Your task to perform on an android device: toggle translation in the chrome app Image 0: 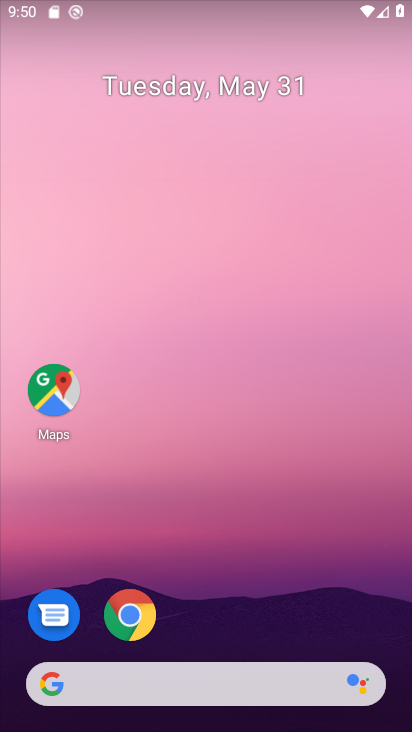
Step 0: click (119, 607)
Your task to perform on an android device: toggle translation in the chrome app Image 1: 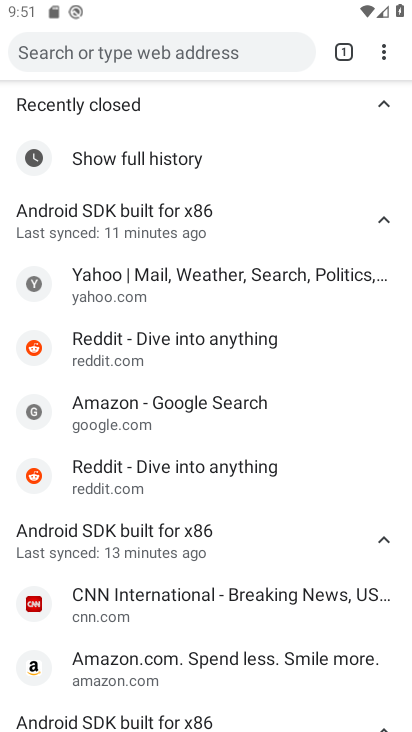
Step 1: click (386, 57)
Your task to perform on an android device: toggle translation in the chrome app Image 2: 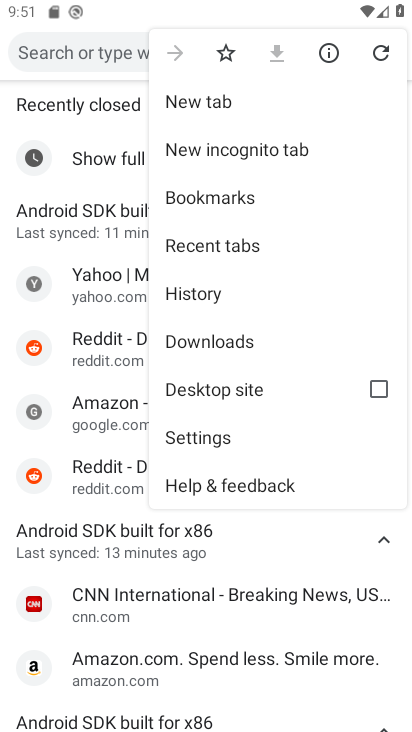
Step 2: click (232, 441)
Your task to perform on an android device: toggle translation in the chrome app Image 3: 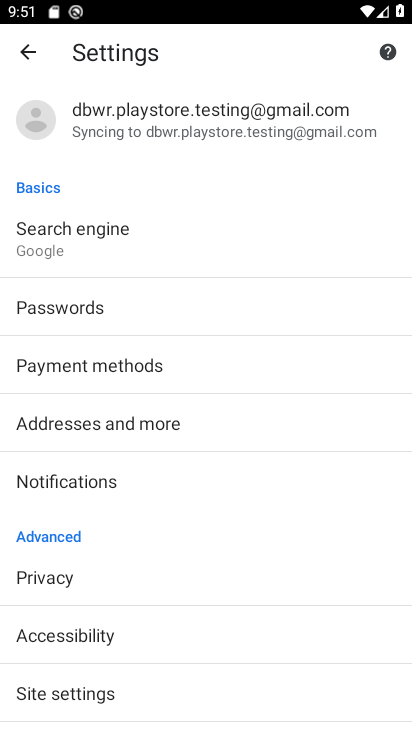
Step 3: drag from (171, 632) to (259, 239)
Your task to perform on an android device: toggle translation in the chrome app Image 4: 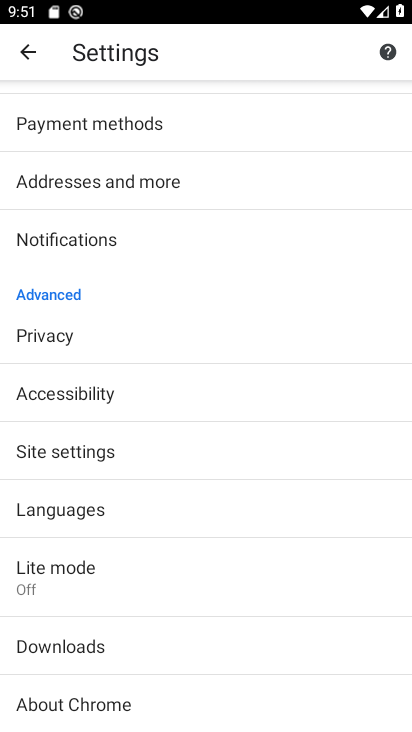
Step 4: click (113, 506)
Your task to perform on an android device: toggle translation in the chrome app Image 5: 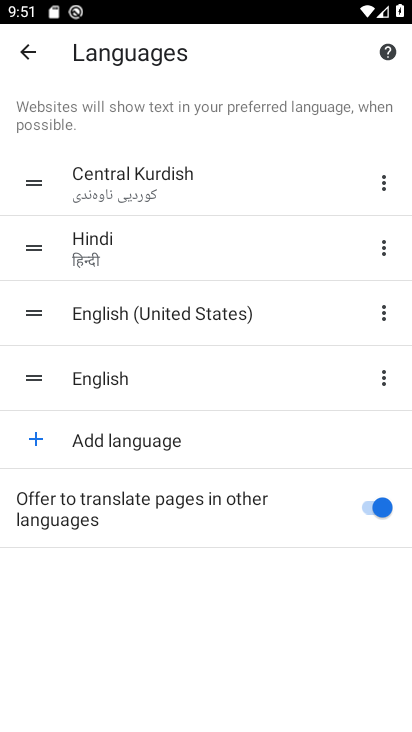
Step 5: click (349, 510)
Your task to perform on an android device: toggle translation in the chrome app Image 6: 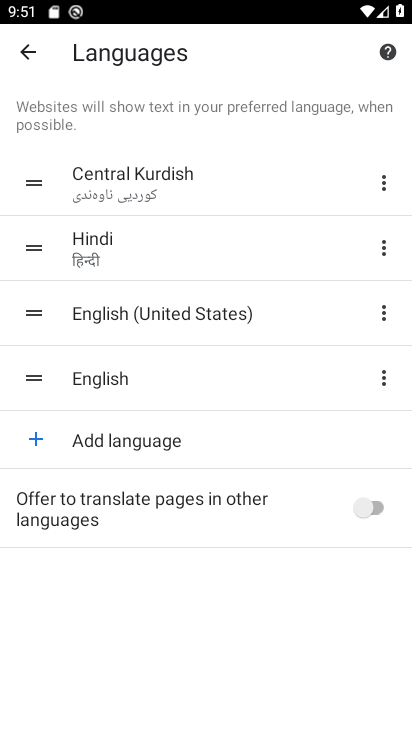
Step 6: task complete